Your task to perform on an android device: check battery use Image 0: 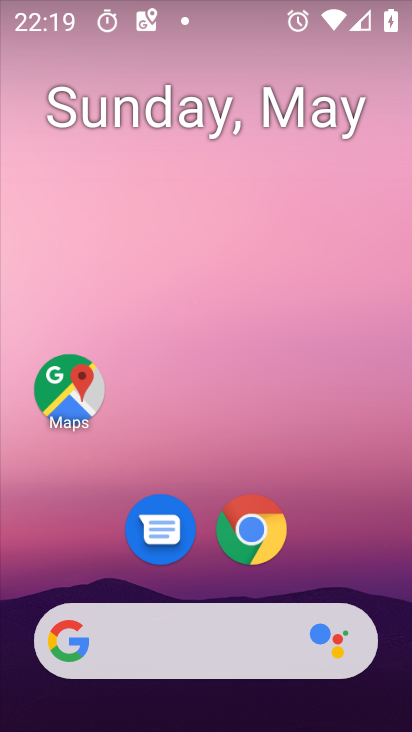
Step 0: drag from (344, 594) to (385, 6)
Your task to perform on an android device: check battery use Image 1: 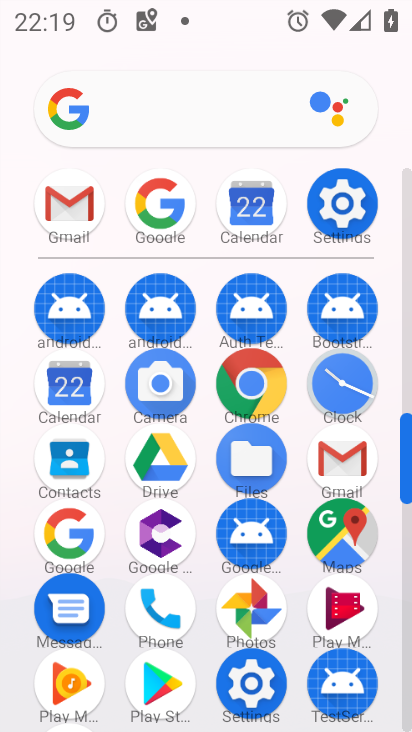
Step 1: click (339, 207)
Your task to perform on an android device: check battery use Image 2: 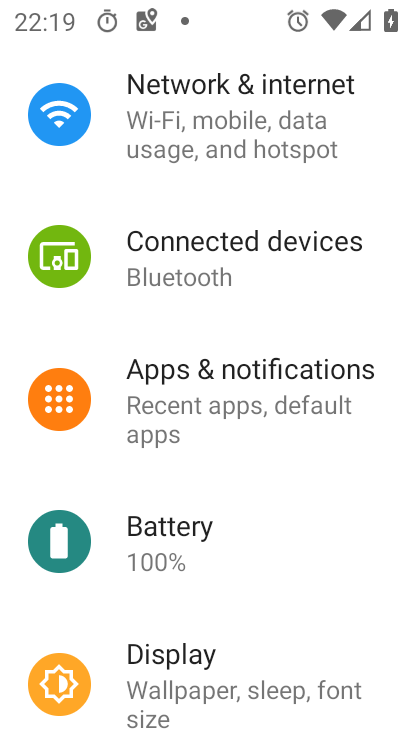
Step 2: click (152, 546)
Your task to perform on an android device: check battery use Image 3: 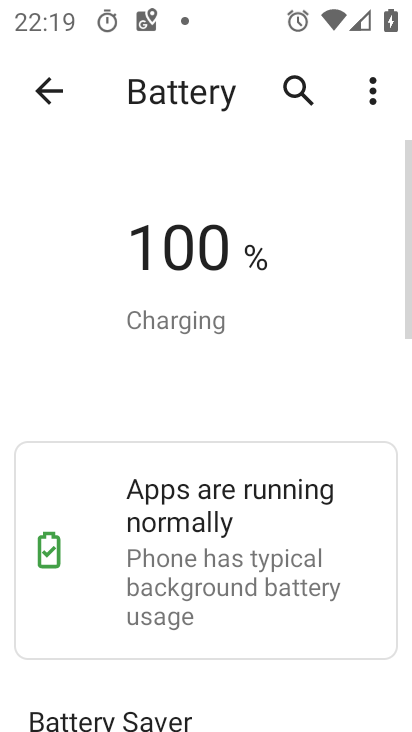
Step 3: click (367, 89)
Your task to perform on an android device: check battery use Image 4: 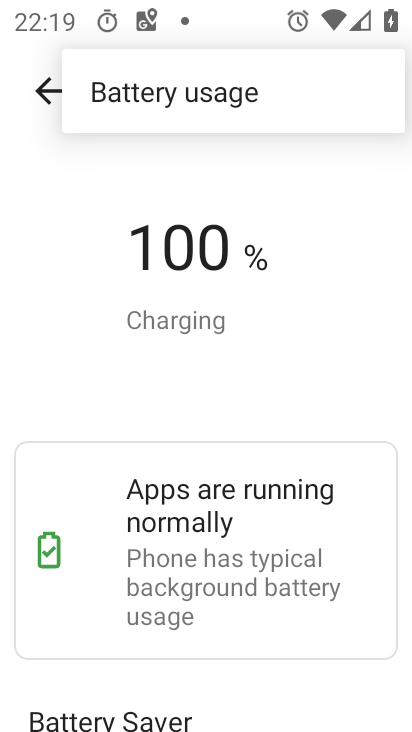
Step 4: click (151, 103)
Your task to perform on an android device: check battery use Image 5: 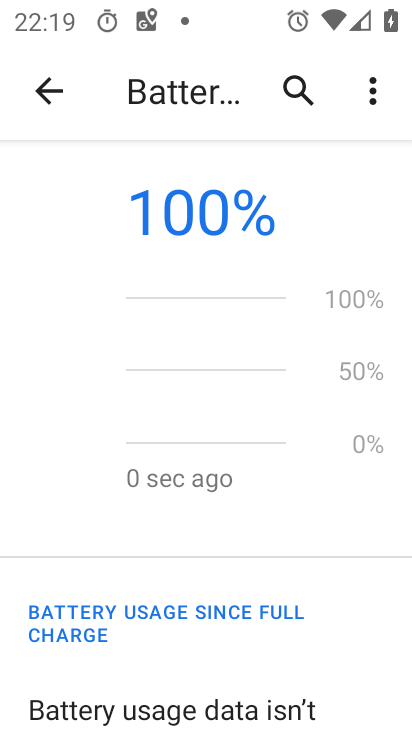
Step 5: task complete